Your task to perform on an android device: Search for "usb-c to usb-a" on target, select the first entry, add it to the cart, then select checkout. Image 0: 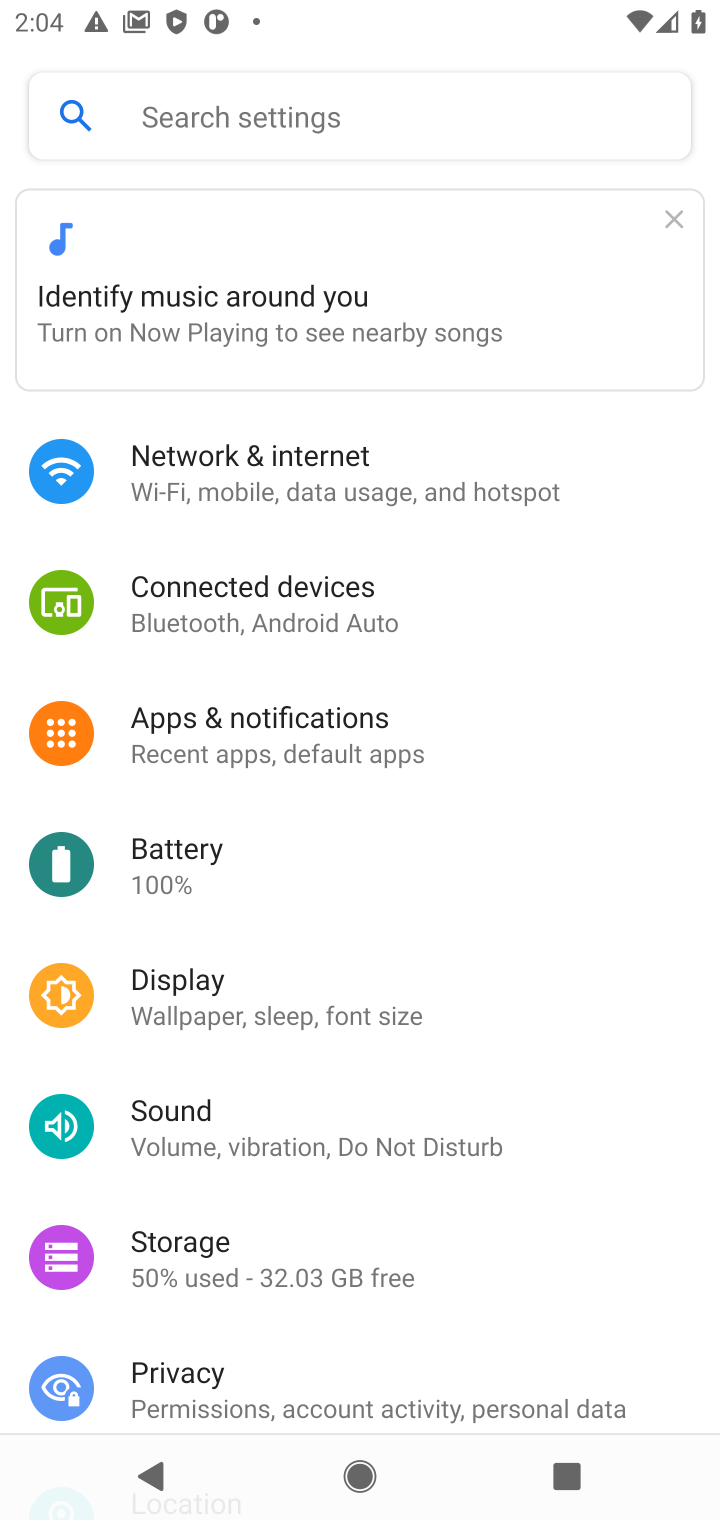
Step 0: click (87, 1355)
Your task to perform on an android device: Search for "usb-c to usb-a" on target, select the first entry, add it to the cart, then select checkout. Image 1: 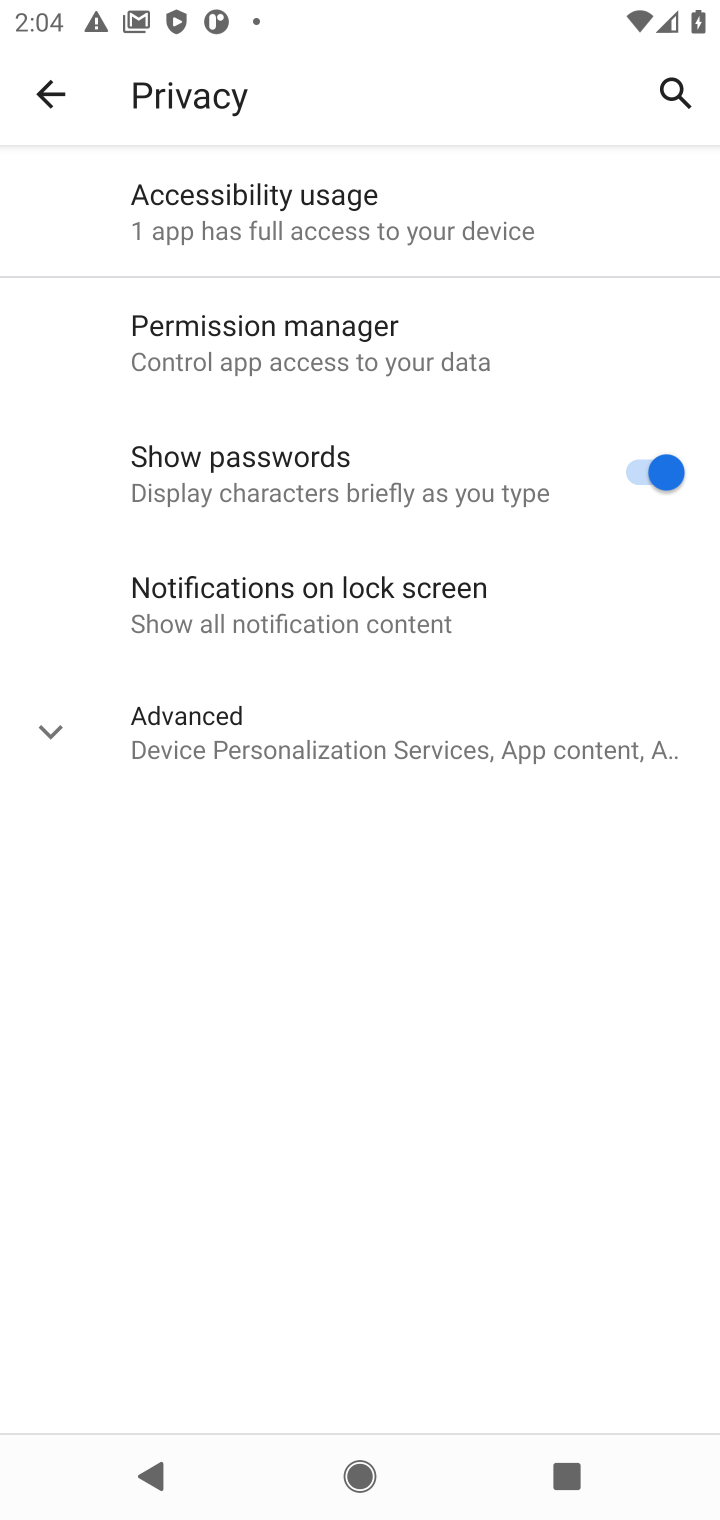
Step 1: press home button
Your task to perform on an android device: Search for "usb-c to usb-a" on target, select the first entry, add it to the cart, then select checkout. Image 2: 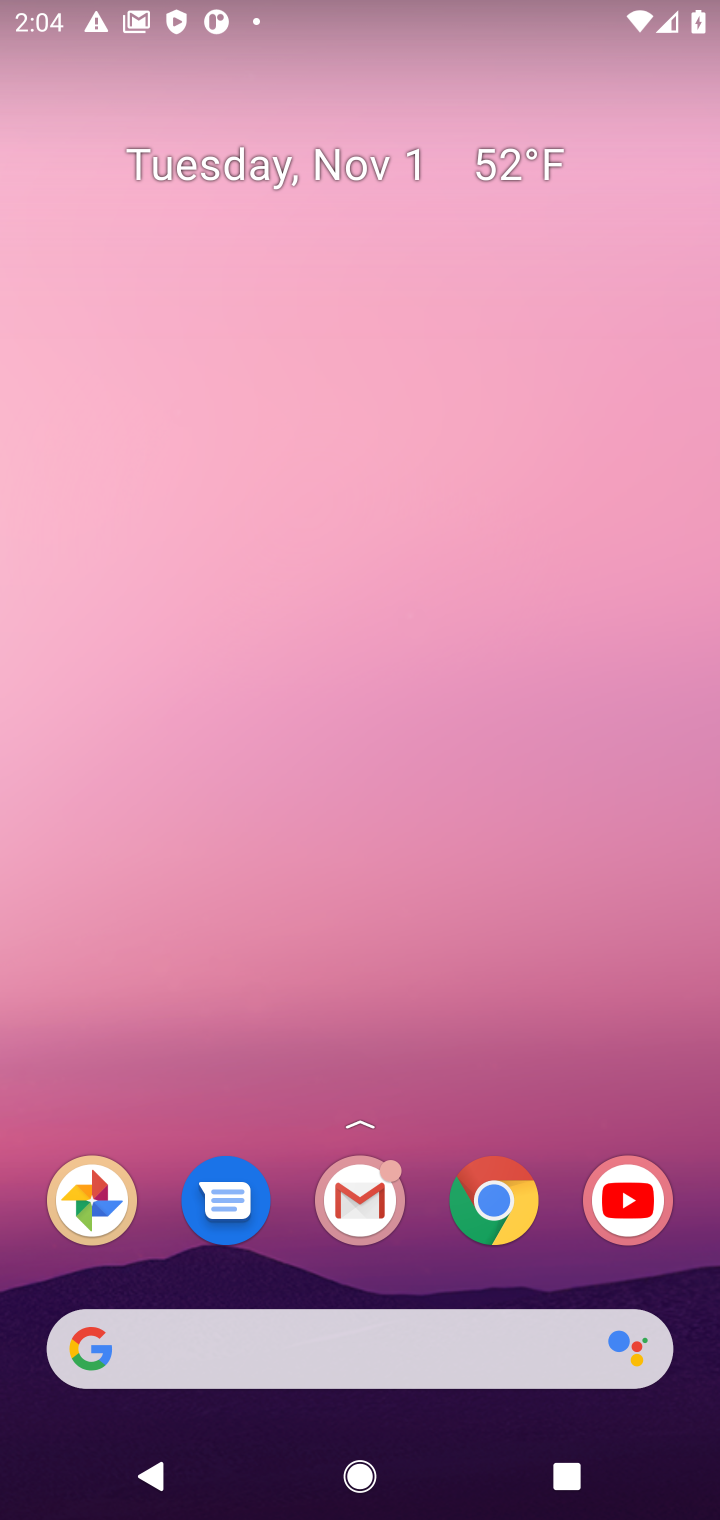
Step 2: click (88, 1347)
Your task to perform on an android device: Search for "usb-c to usb-a" on target, select the first entry, add it to the cart, then select checkout. Image 3: 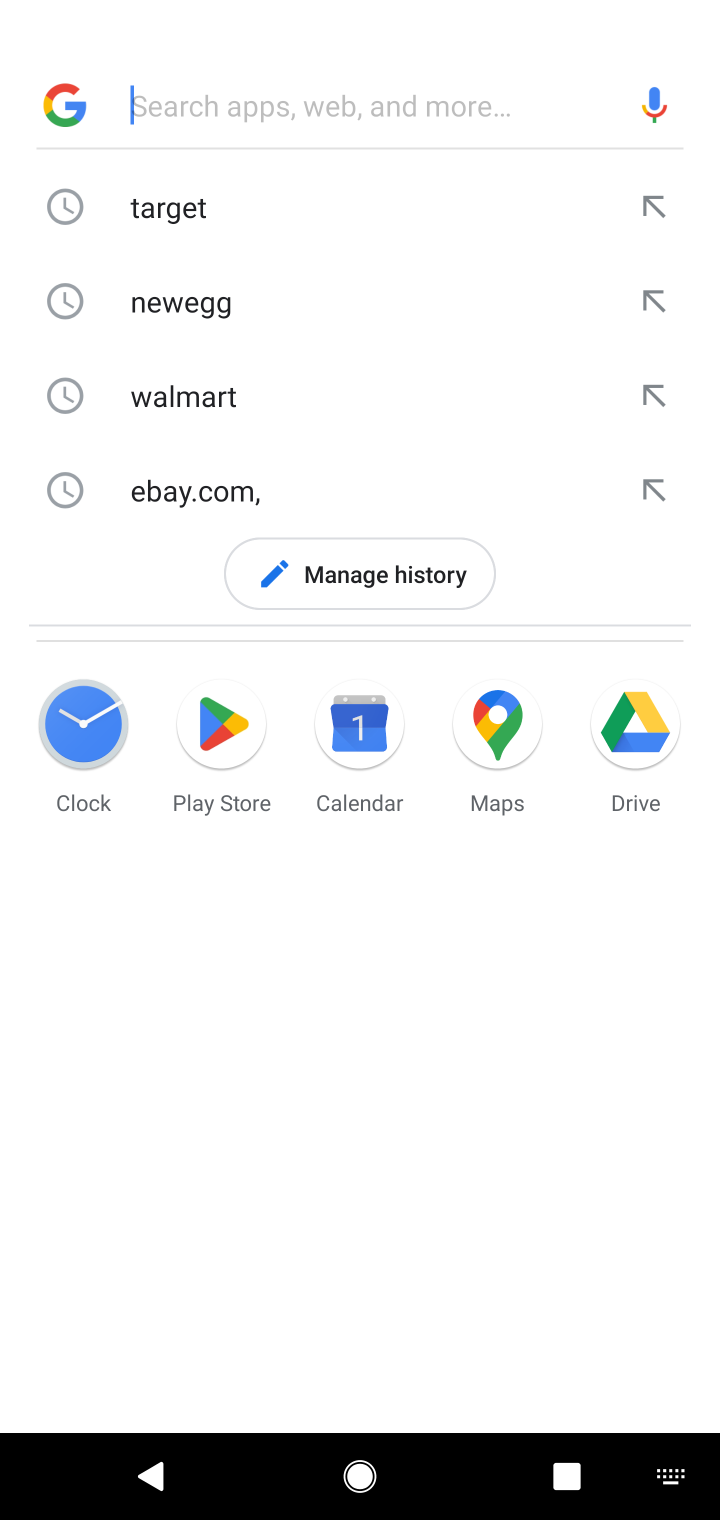
Step 3: type "target"
Your task to perform on an android device: Search for "usb-c to usb-a" on target, select the first entry, add it to the cart, then select checkout. Image 4: 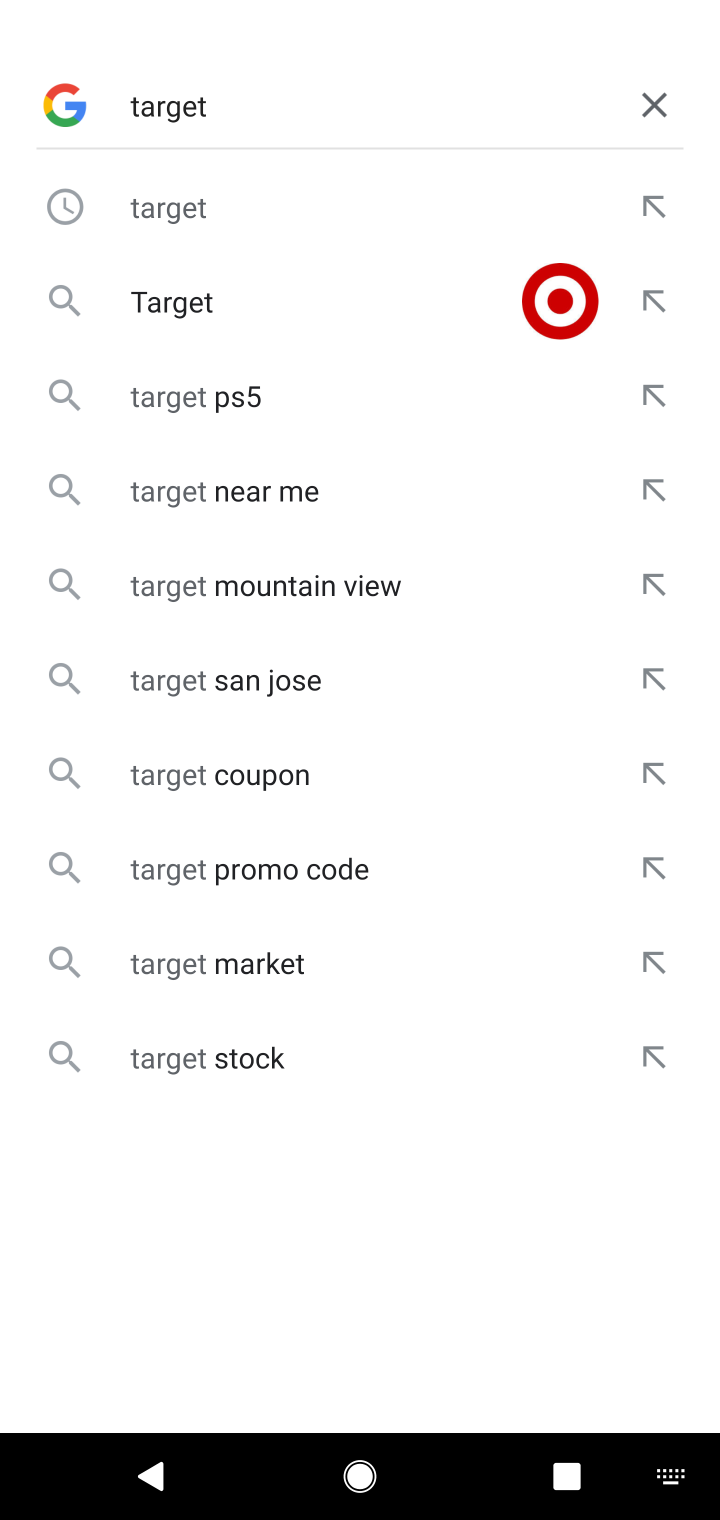
Step 4: click (264, 311)
Your task to perform on an android device: Search for "usb-c to usb-a" on target, select the first entry, add it to the cart, then select checkout. Image 5: 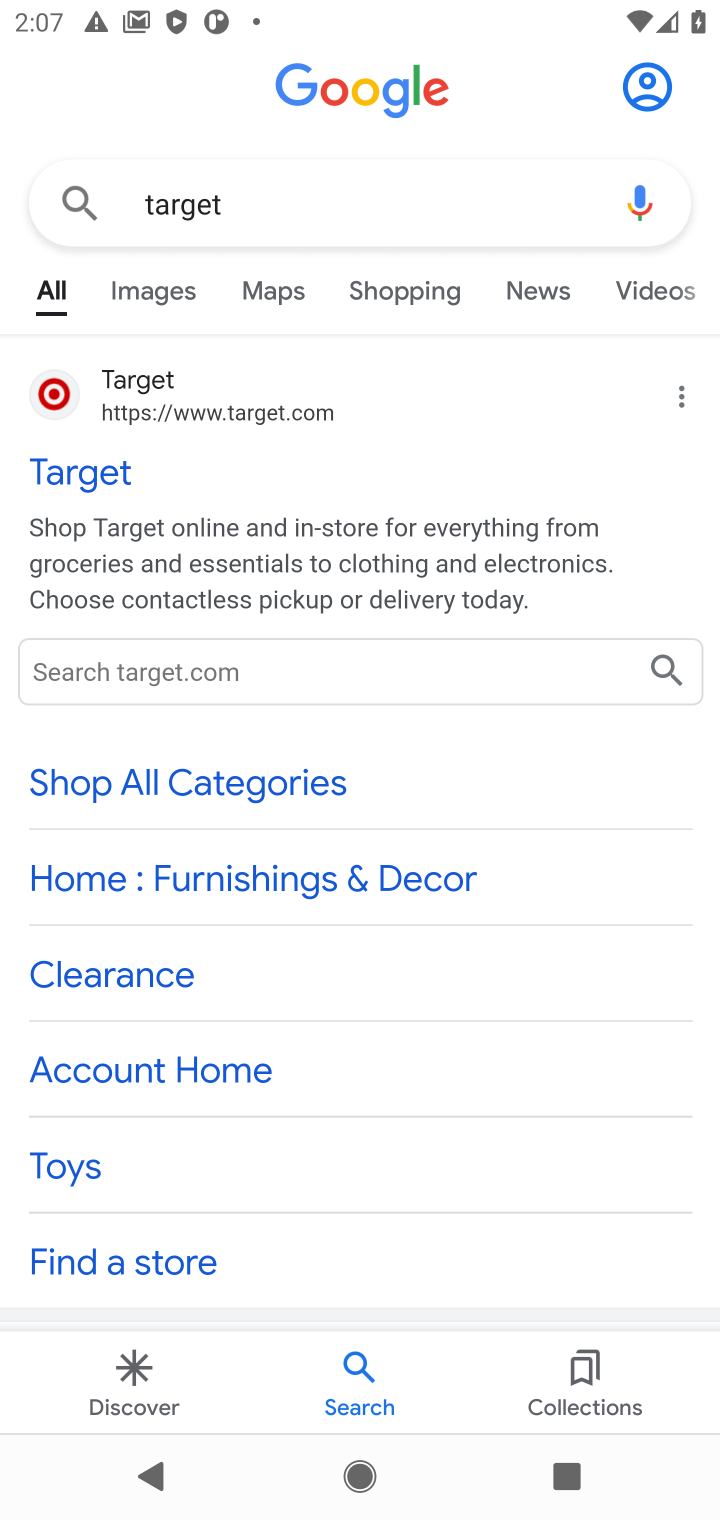
Step 5: click (86, 487)
Your task to perform on an android device: Search for "usb-c to usb-a" on target, select the first entry, add it to the cart, then select checkout. Image 6: 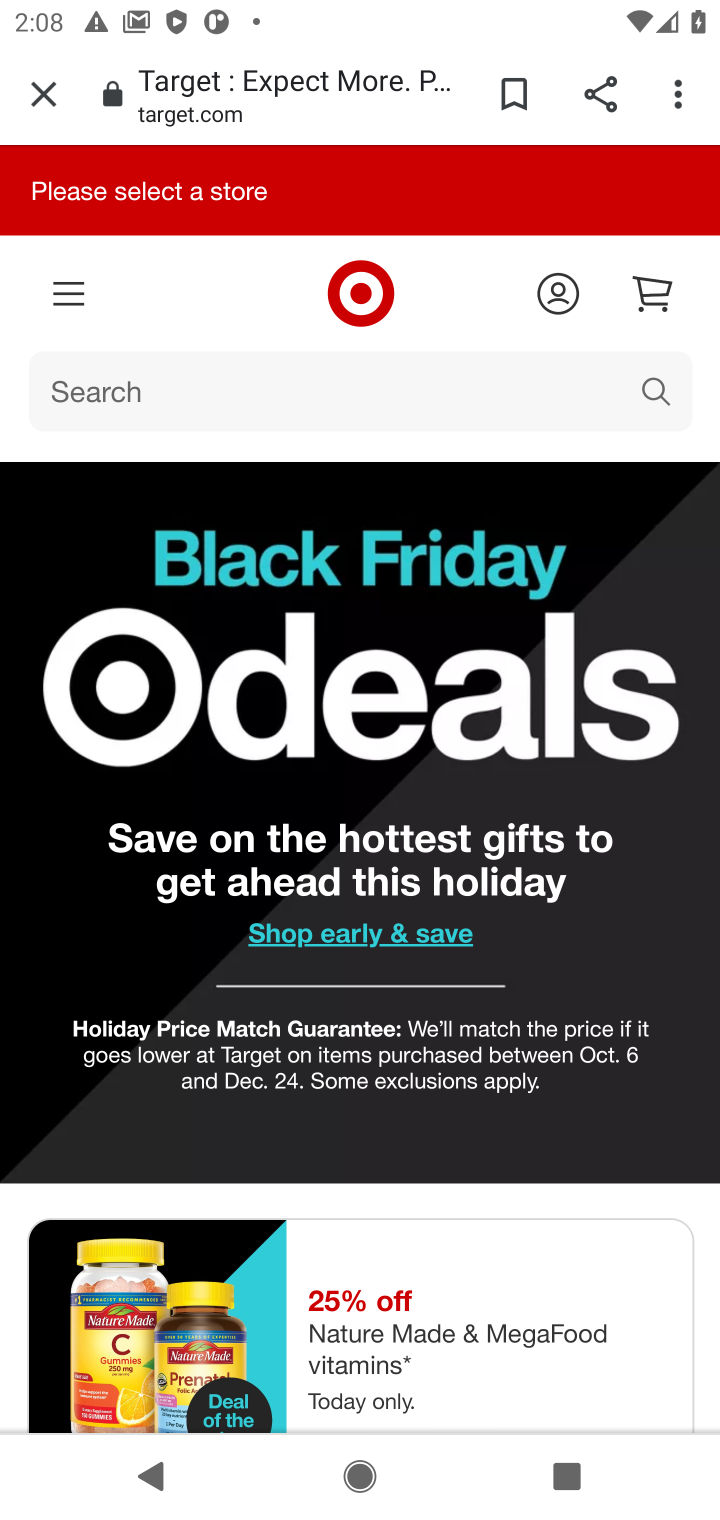
Step 6: click (192, 392)
Your task to perform on an android device: Search for "usb-c to usb-a" on target, select the first entry, add it to the cart, then select checkout. Image 7: 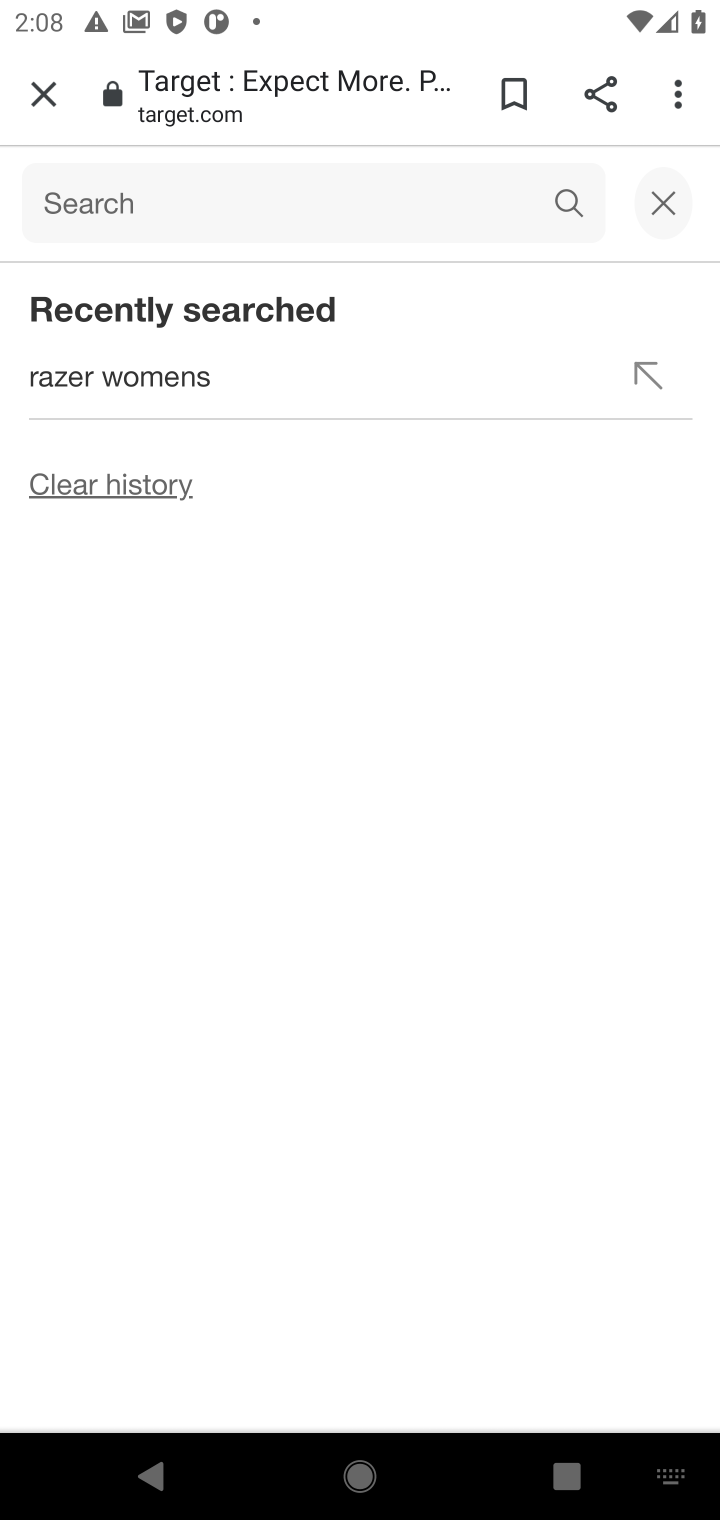
Step 7: type "usb-c to usb-a"
Your task to perform on an android device: Search for "usb-c to usb-a" on target, select the first entry, add it to the cart, then select checkout. Image 8: 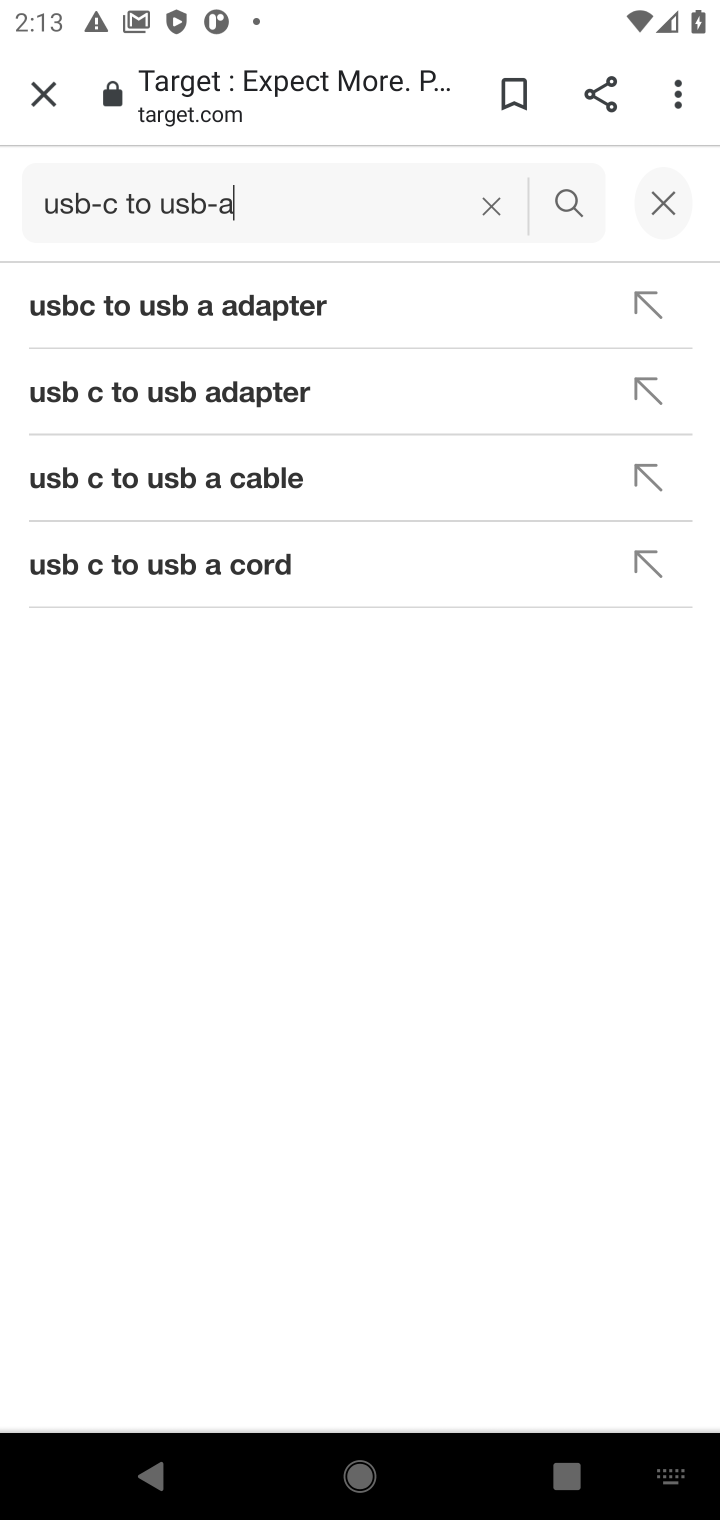
Step 8: click (226, 394)
Your task to perform on an android device: Search for "usb-c to usb-a" on target, select the first entry, add it to the cart, then select checkout. Image 9: 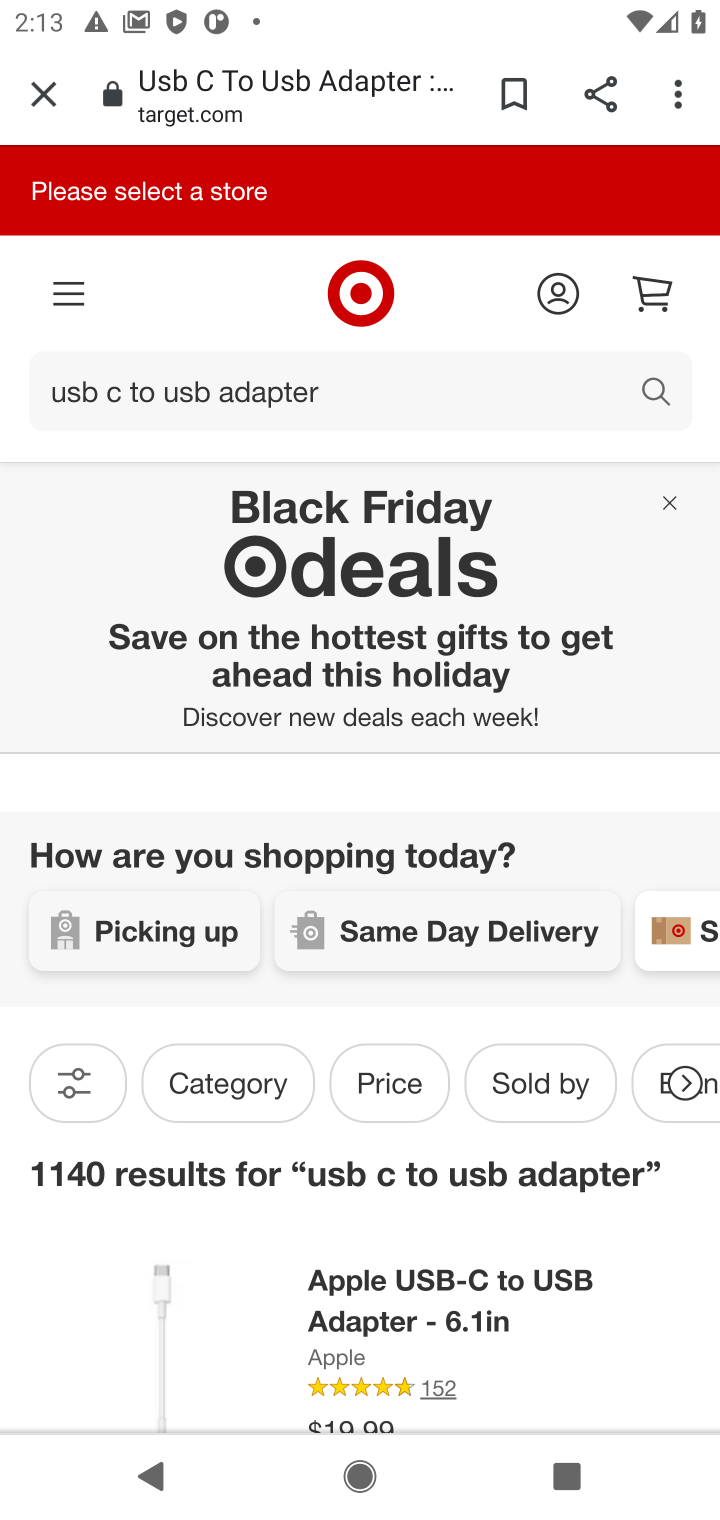
Step 9: click (476, 1283)
Your task to perform on an android device: Search for "usb-c to usb-a" on target, select the first entry, add it to the cart, then select checkout. Image 10: 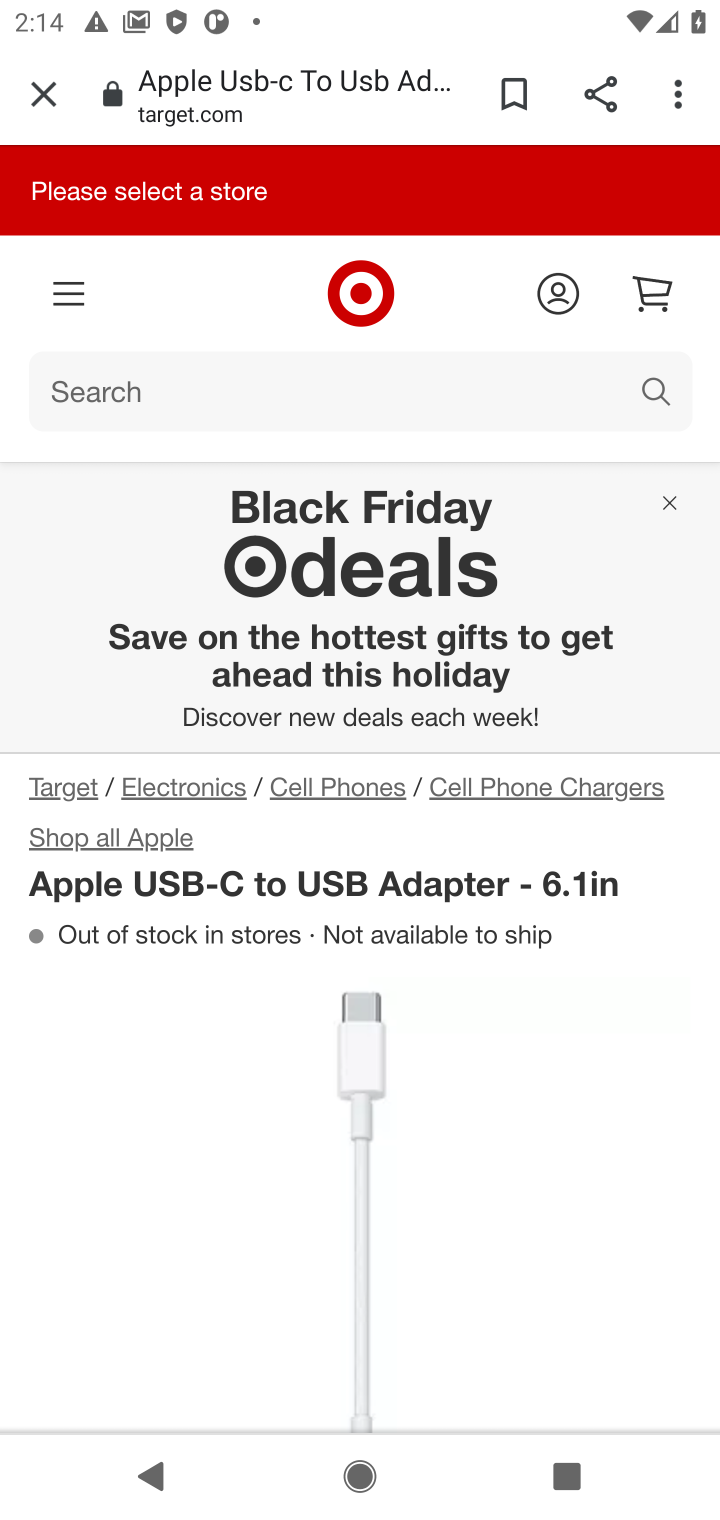
Step 10: task complete